Your task to perform on an android device: add a contact Image 0: 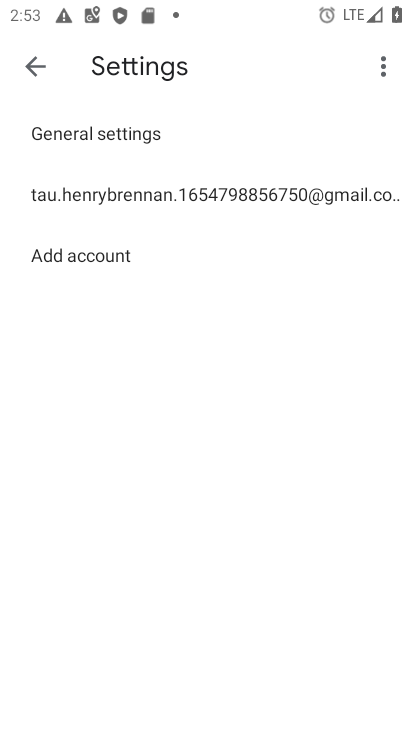
Step 0: press home button
Your task to perform on an android device: add a contact Image 1: 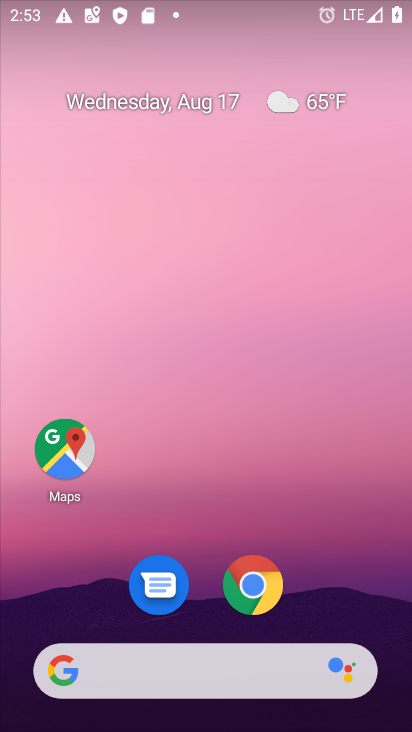
Step 1: drag from (304, 614) to (399, 55)
Your task to perform on an android device: add a contact Image 2: 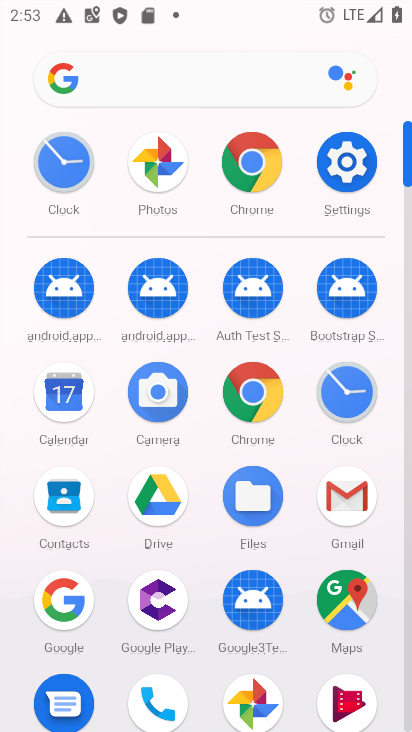
Step 2: click (70, 494)
Your task to perform on an android device: add a contact Image 3: 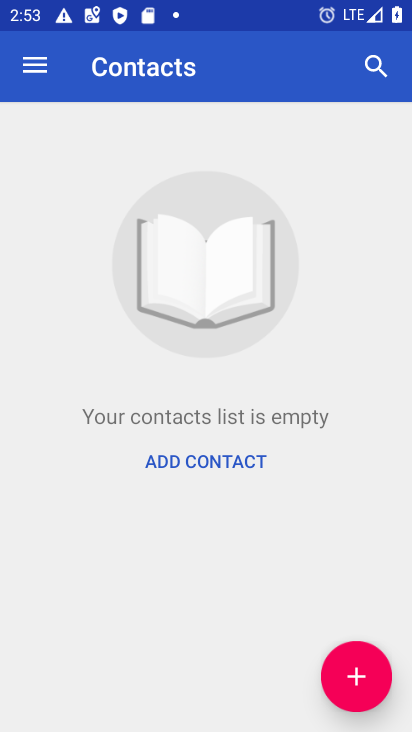
Step 3: click (361, 667)
Your task to perform on an android device: add a contact Image 4: 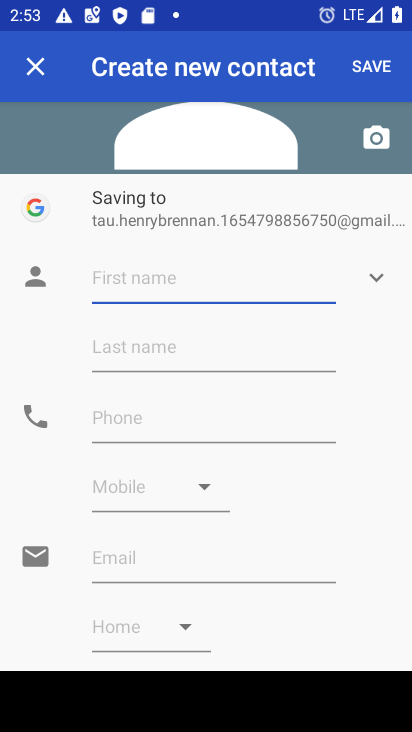
Step 4: type "Abha"
Your task to perform on an android device: add a contact Image 5: 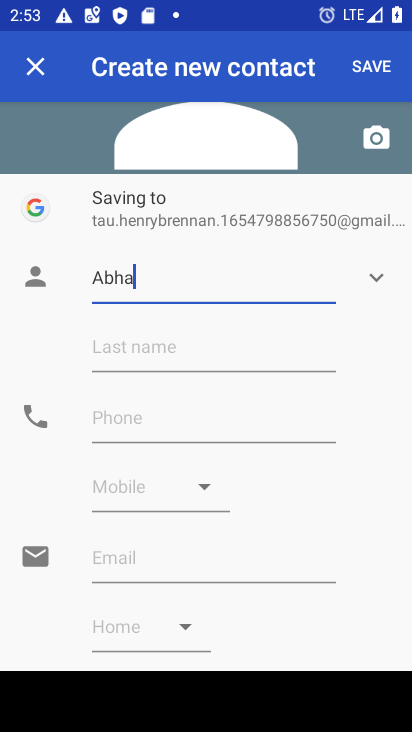
Step 5: click (243, 429)
Your task to perform on an android device: add a contact Image 6: 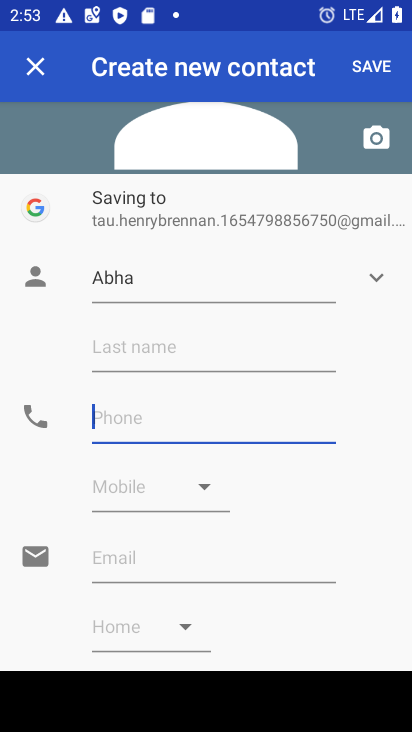
Step 6: type "99998765432"
Your task to perform on an android device: add a contact Image 7: 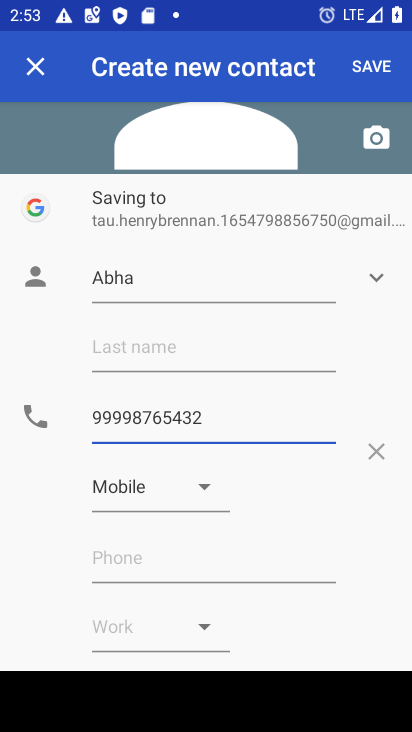
Step 7: click (370, 65)
Your task to perform on an android device: add a contact Image 8: 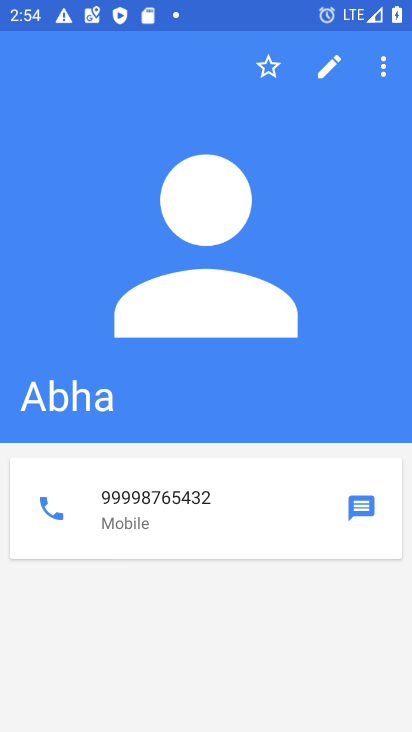
Step 8: task complete